Your task to perform on an android device: Empty the shopping cart on target.com. Search for acer predator on target.com, select the first entry, add it to the cart, then select checkout. Image 0: 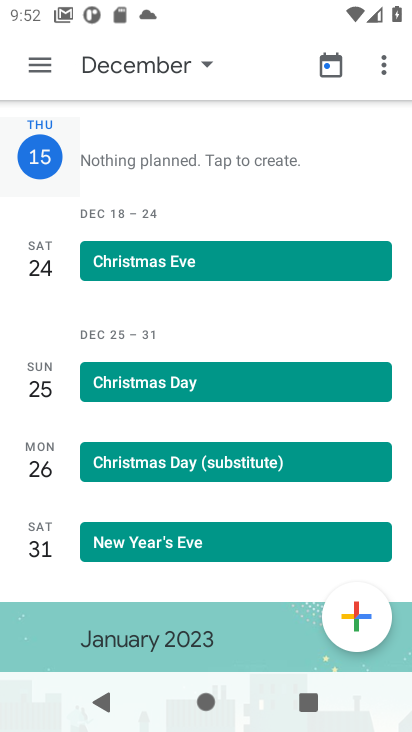
Step 0: press home button
Your task to perform on an android device: Empty the shopping cart on target.com. Search for acer predator on target.com, select the first entry, add it to the cart, then select checkout. Image 1: 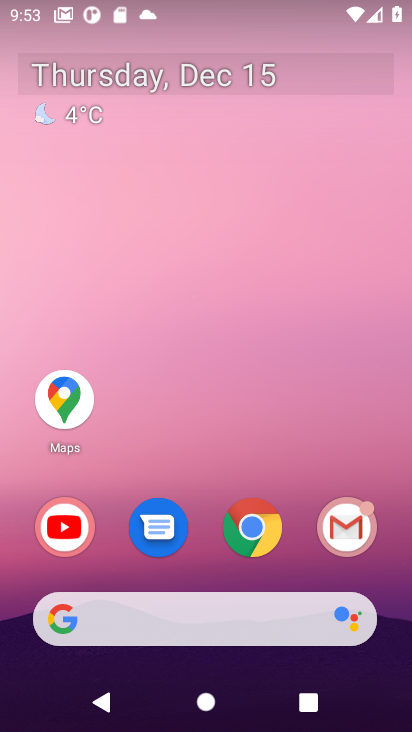
Step 1: click (239, 542)
Your task to perform on an android device: Empty the shopping cart on target.com. Search for acer predator on target.com, select the first entry, add it to the cart, then select checkout. Image 2: 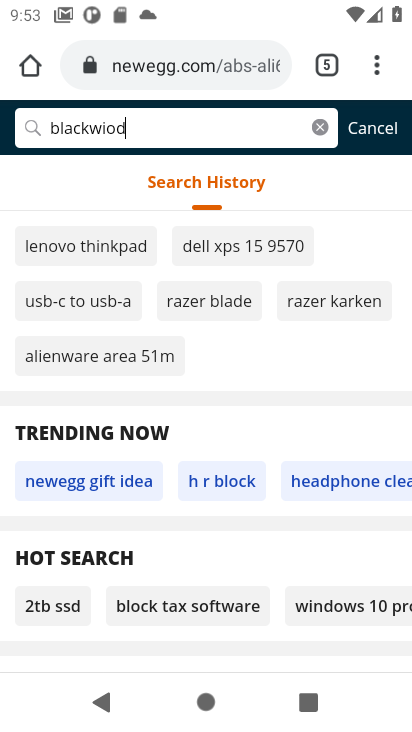
Step 2: click (200, 75)
Your task to perform on an android device: Empty the shopping cart on target.com. Search for acer predator on target.com, select the first entry, add it to the cart, then select checkout. Image 3: 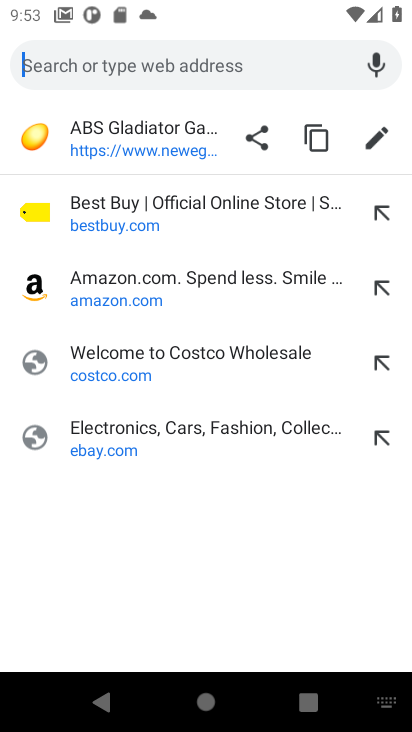
Step 3: type "target"
Your task to perform on an android device: Empty the shopping cart on target.com. Search for acer predator on target.com, select the first entry, add it to the cart, then select checkout. Image 4: 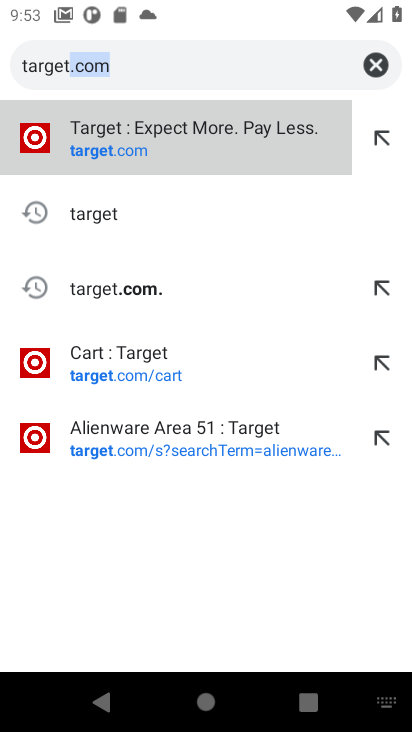
Step 4: click (118, 132)
Your task to perform on an android device: Empty the shopping cart on target.com. Search for acer predator on target.com, select the first entry, add it to the cart, then select checkout. Image 5: 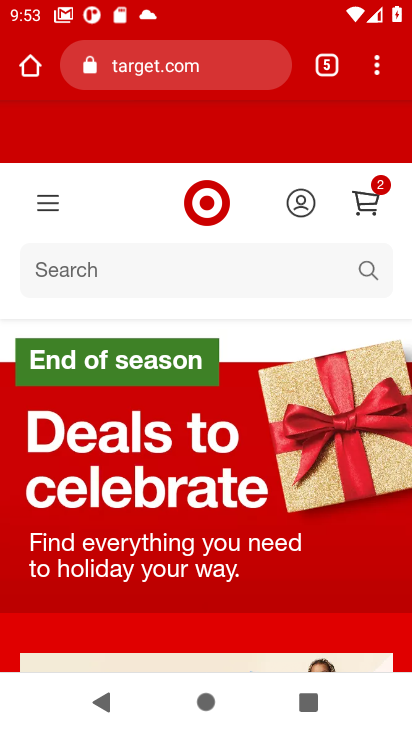
Step 5: click (143, 259)
Your task to perform on an android device: Empty the shopping cart on target.com. Search for acer predator on target.com, select the first entry, add it to the cart, then select checkout. Image 6: 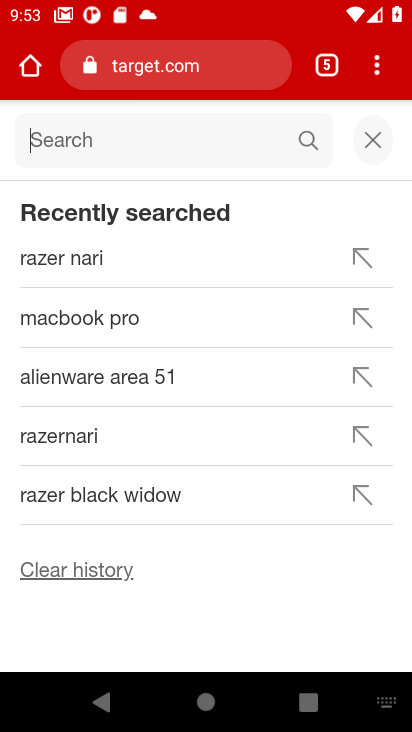
Step 6: type "acer predator"
Your task to perform on an android device: Empty the shopping cart on target.com. Search for acer predator on target.com, select the first entry, add it to the cart, then select checkout. Image 7: 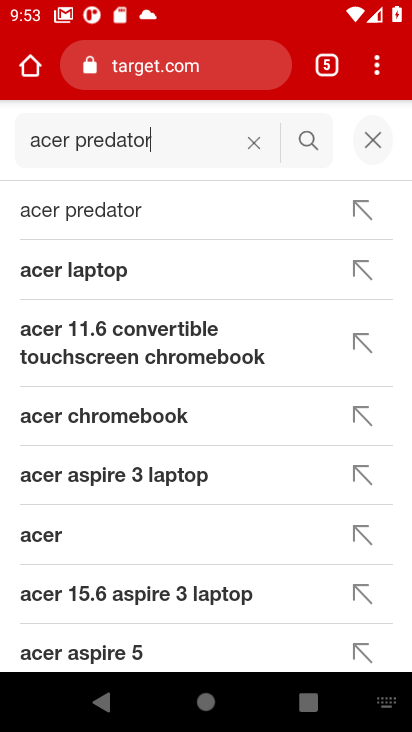
Step 7: click (298, 153)
Your task to perform on an android device: Empty the shopping cart on target.com. Search for acer predator on target.com, select the first entry, add it to the cart, then select checkout. Image 8: 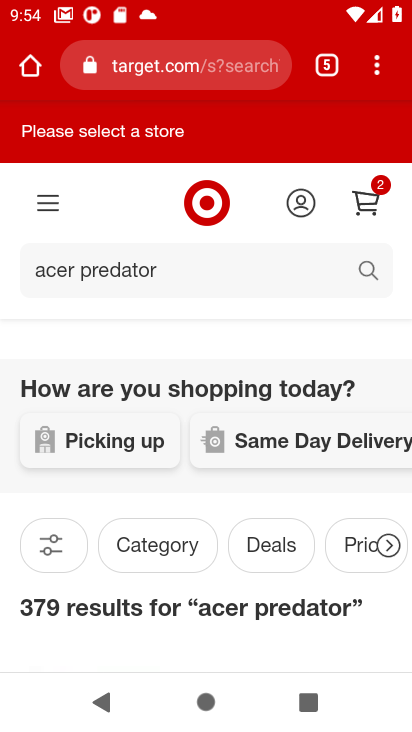
Step 8: drag from (217, 613) to (229, 211)
Your task to perform on an android device: Empty the shopping cart on target.com. Search for acer predator on target.com, select the first entry, add it to the cart, then select checkout. Image 9: 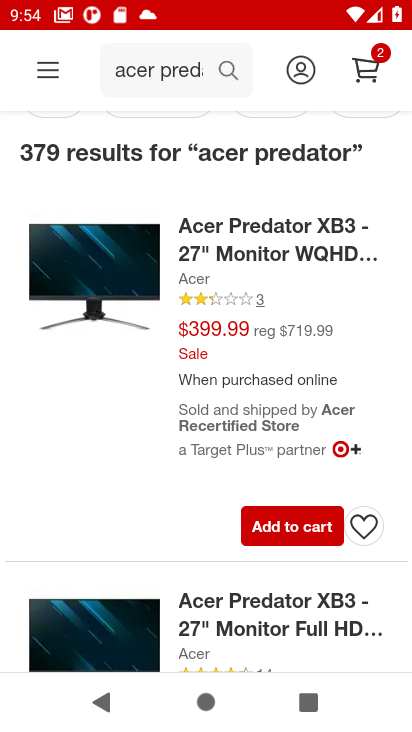
Step 9: click (256, 521)
Your task to perform on an android device: Empty the shopping cart on target.com. Search for acer predator on target.com, select the first entry, add it to the cart, then select checkout. Image 10: 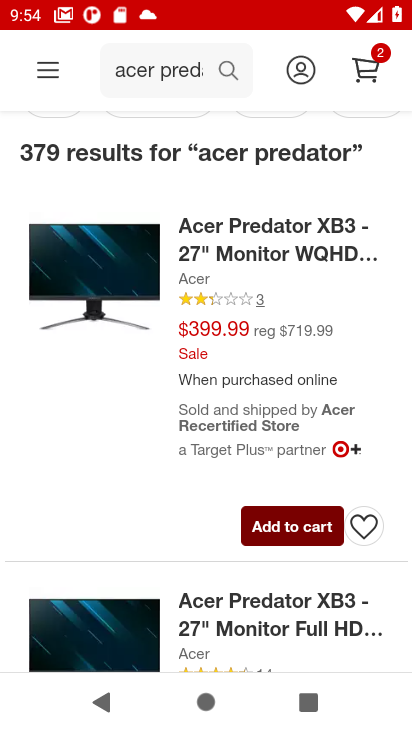
Step 10: task complete